Your task to perform on an android device: uninstall "Google Calendar" Image 0: 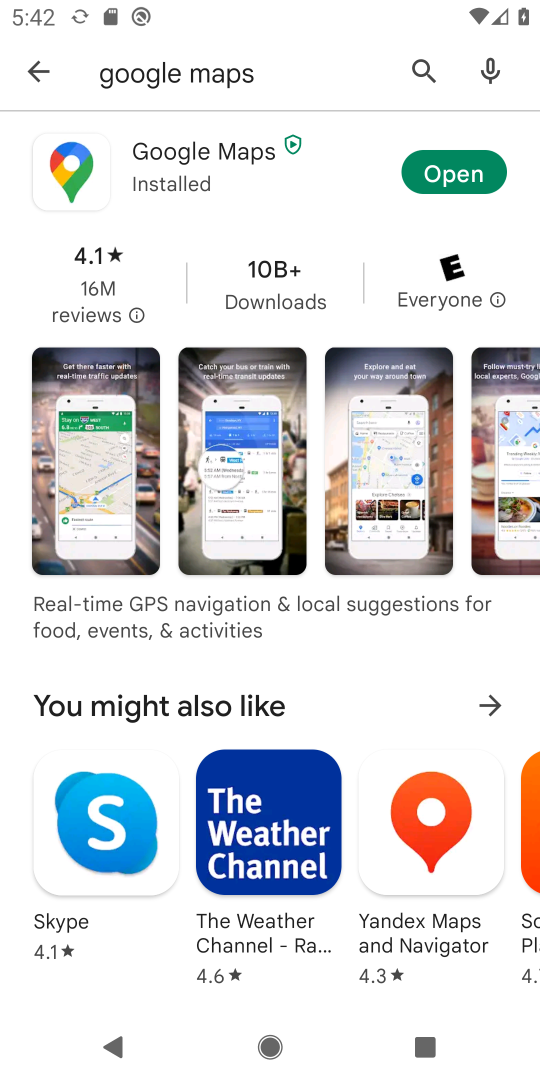
Step 0: press home button
Your task to perform on an android device: uninstall "Google Calendar" Image 1: 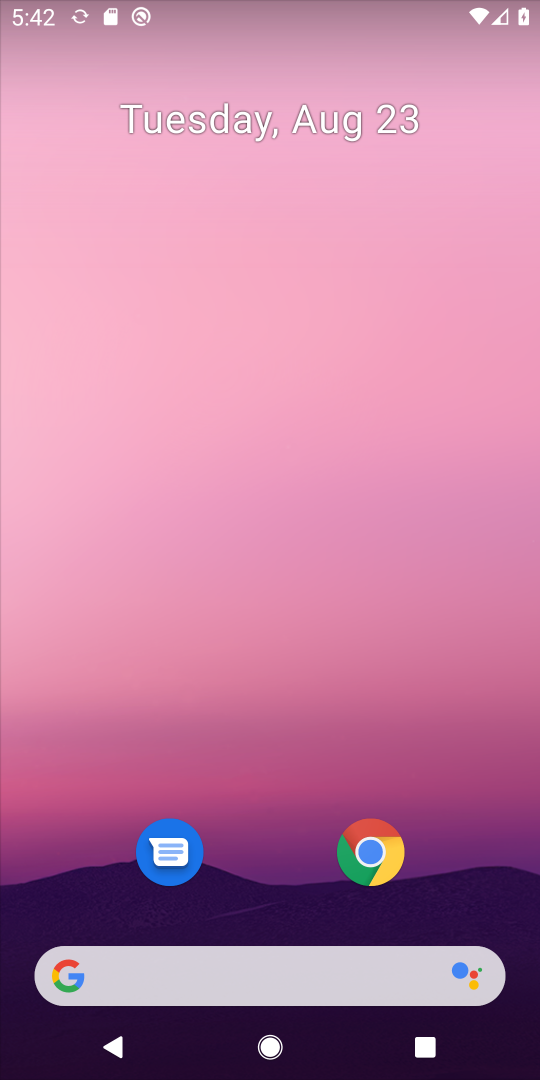
Step 1: drag from (215, 982) to (410, 24)
Your task to perform on an android device: uninstall "Google Calendar" Image 2: 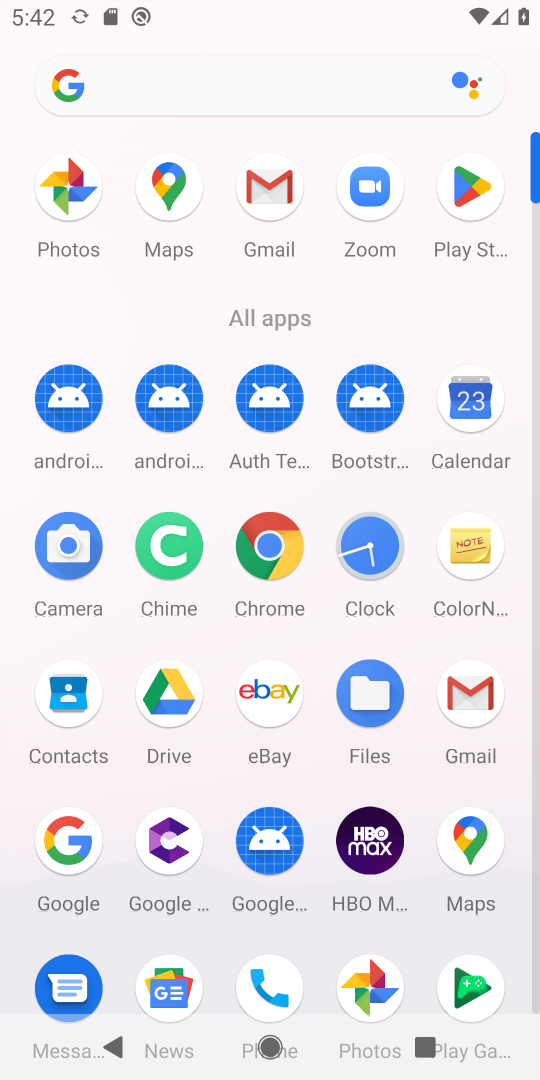
Step 2: click (469, 190)
Your task to perform on an android device: uninstall "Google Calendar" Image 3: 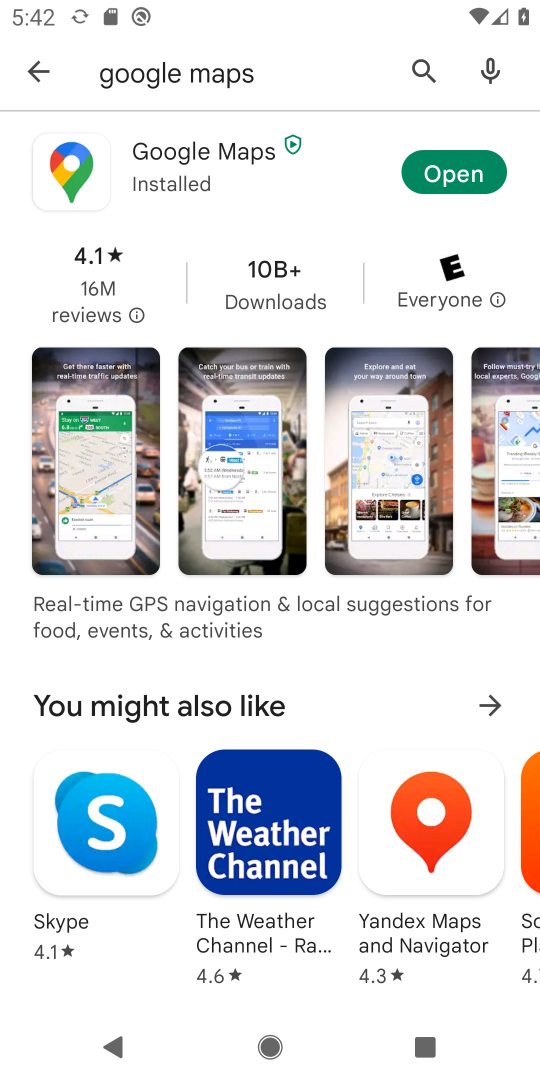
Step 3: press back button
Your task to perform on an android device: uninstall "Google Calendar" Image 4: 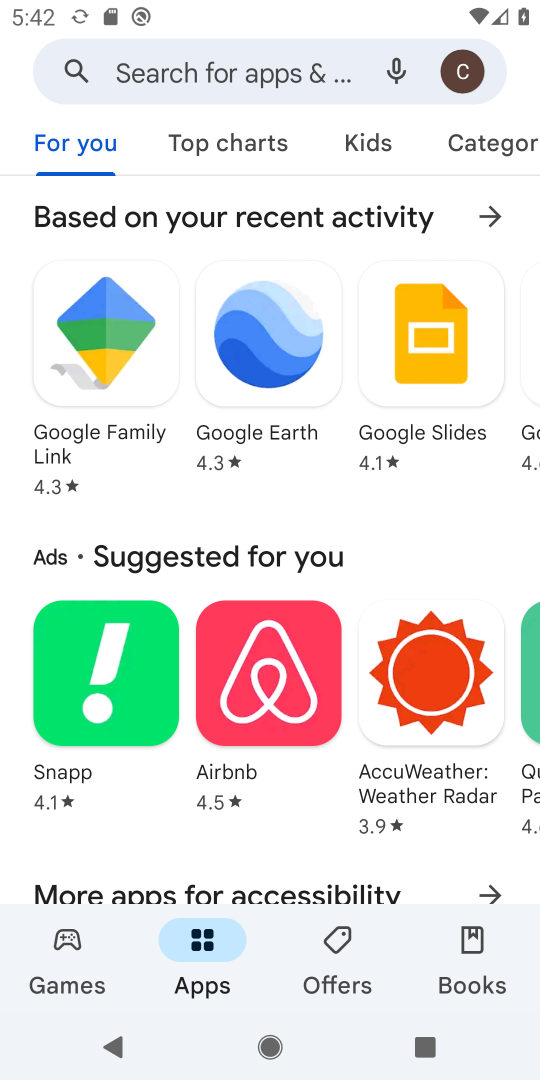
Step 4: click (311, 62)
Your task to perform on an android device: uninstall "Google Calendar" Image 5: 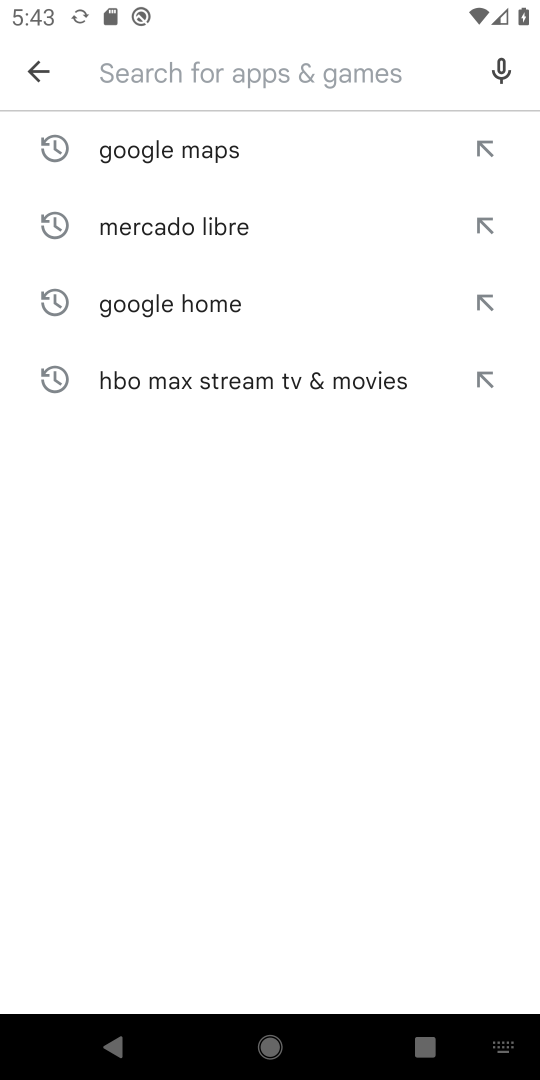
Step 5: type "Google Calendar"
Your task to perform on an android device: uninstall "Google Calendar" Image 6: 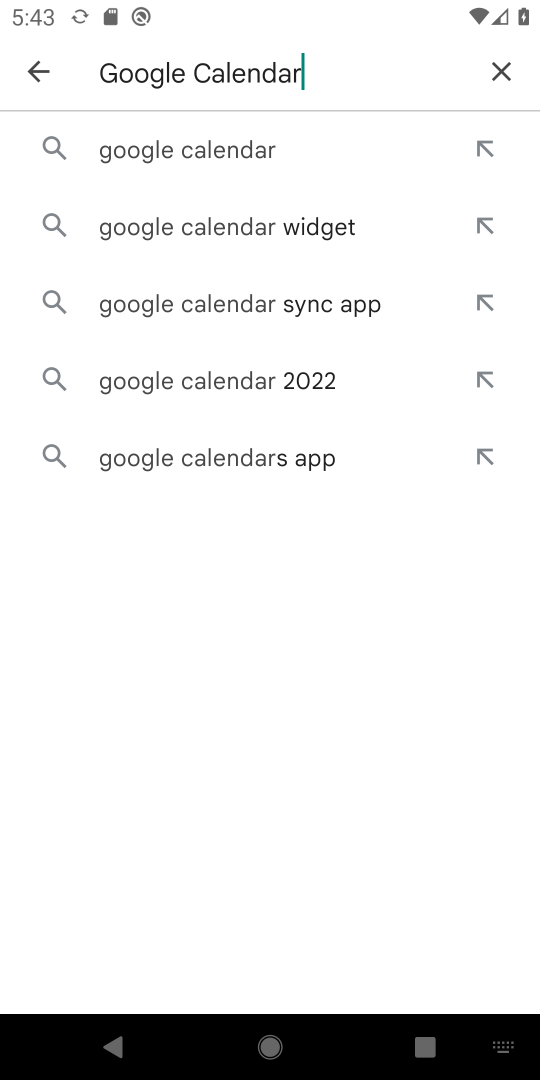
Step 6: click (240, 158)
Your task to perform on an android device: uninstall "Google Calendar" Image 7: 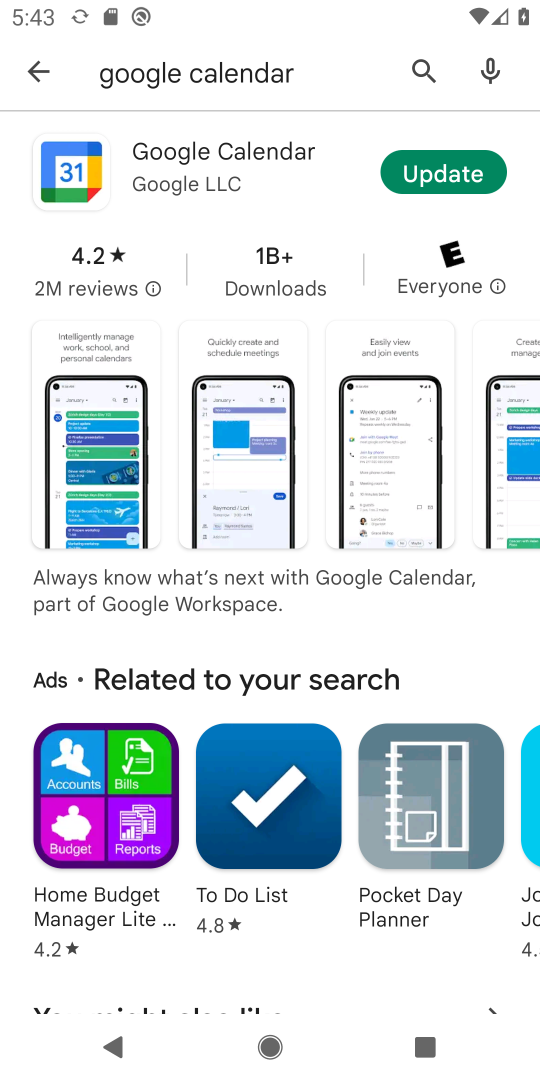
Step 7: click (409, 178)
Your task to perform on an android device: uninstall "Google Calendar" Image 8: 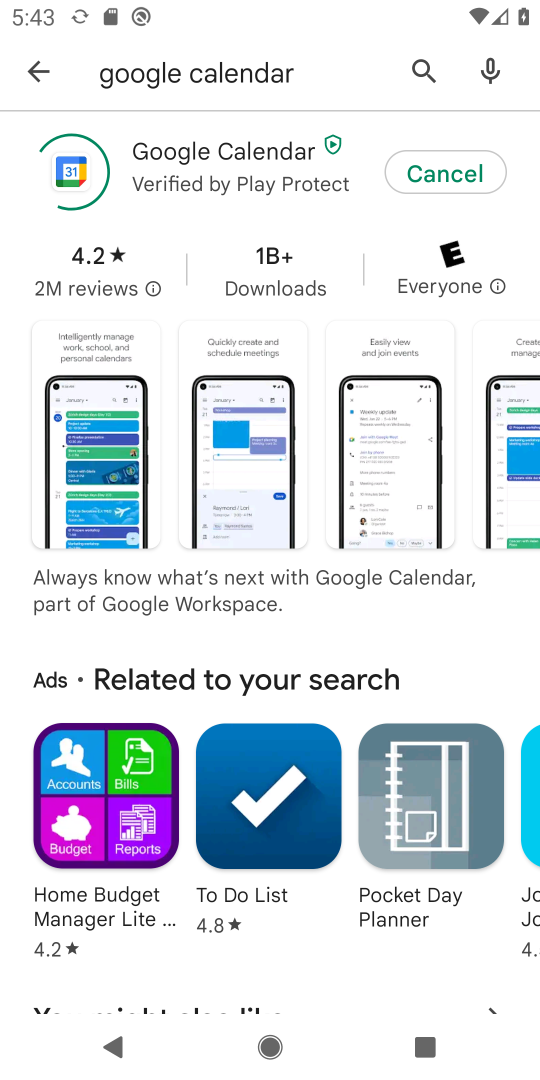
Step 8: click (279, 163)
Your task to perform on an android device: uninstall "Google Calendar" Image 9: 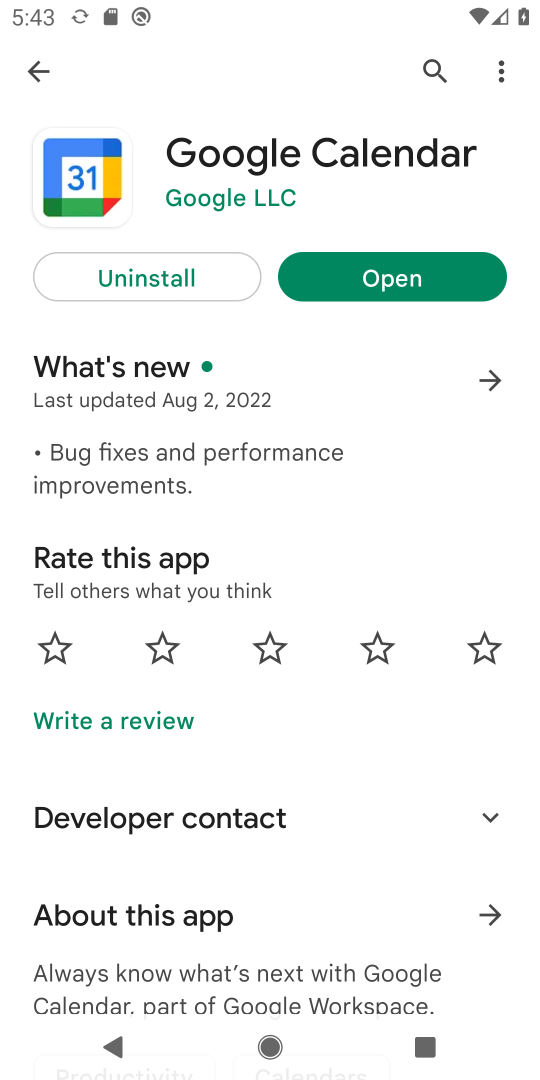
Step 9: click (182, 275)
Your task to perform on an android device: uninstall "Google Calendar" Image 10: 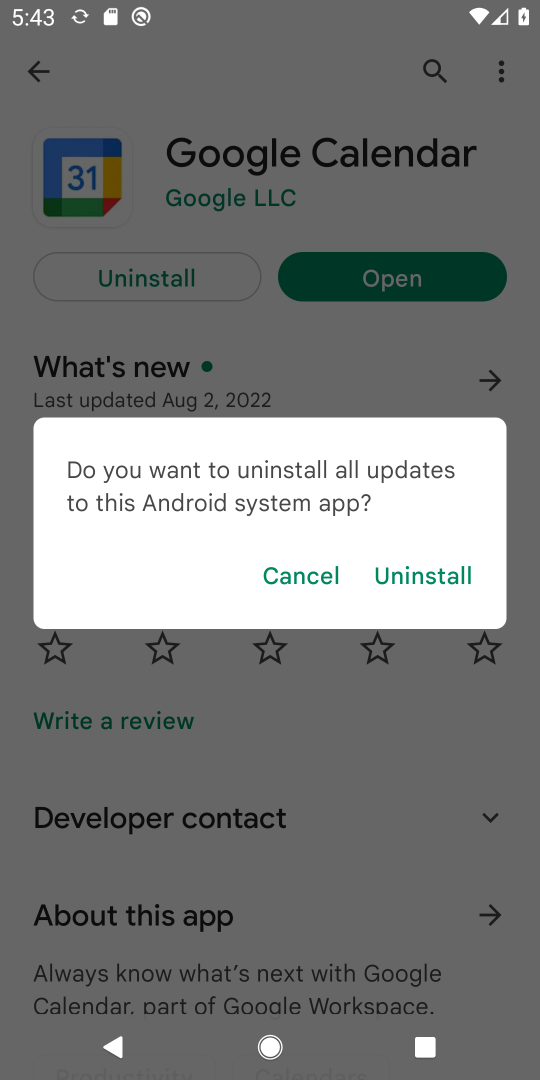
Step 10: click (408, 575)
Your task to perform on an android device: uninstall "Google Calendar" Image 11: 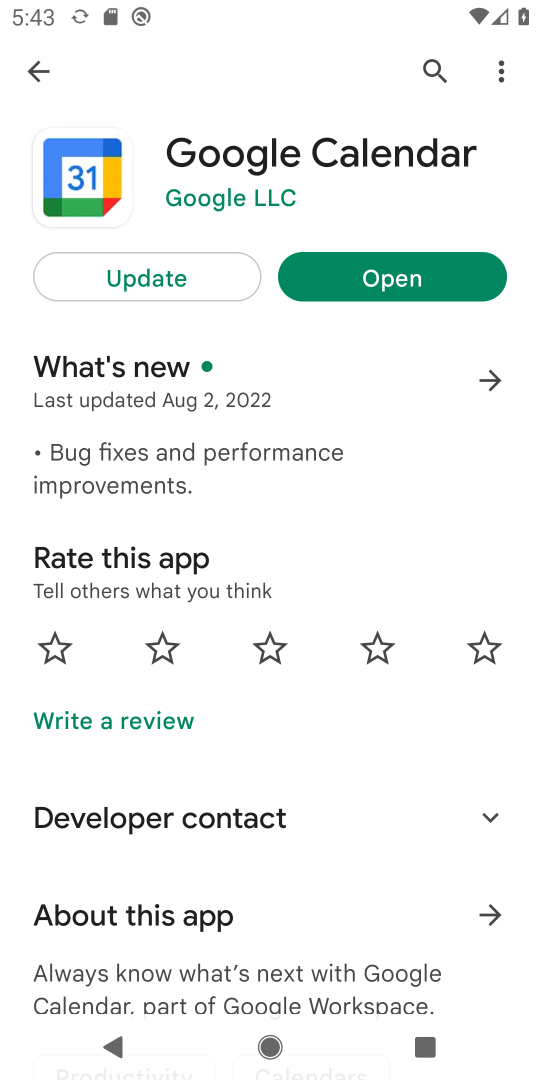
Step 11: task complete